Your task to perform on an android device: delete browsing data in the chrome app Image 0: 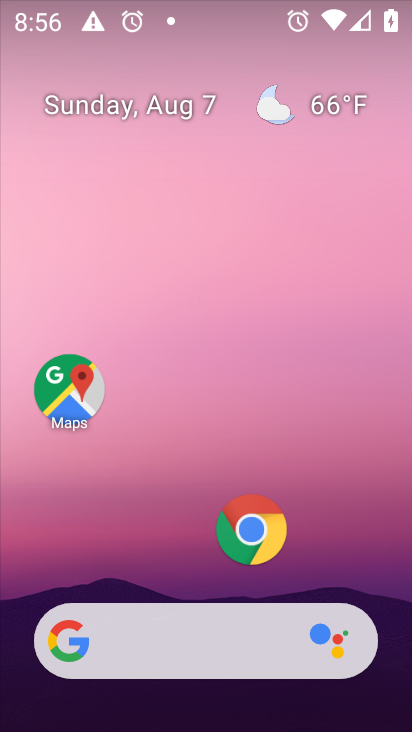
Step 0: click (273, 545)
Your task to perform on an android device: delete browsing data in the chrome app Image 1: 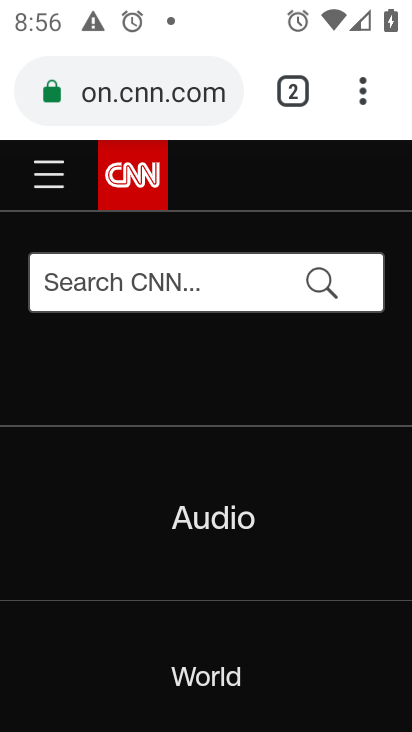
Step 1: click (373, 78)
Your task to perform on an android device: delete browsing data in the chrome app Image 2: 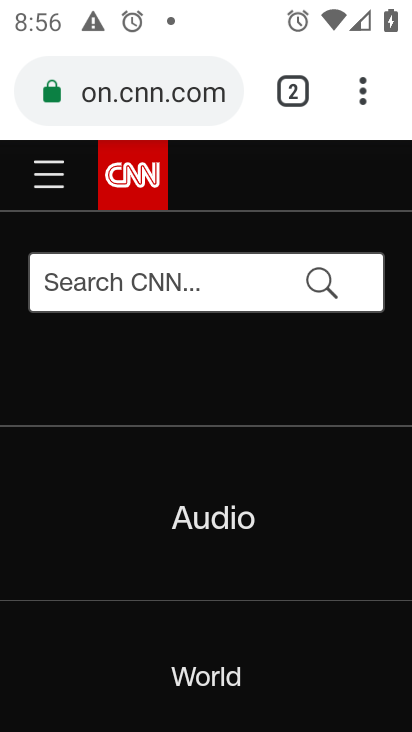
Step 2: click (364, 96)
Your task to perform on an android device: delete browsing data in the chrome app Image 3: 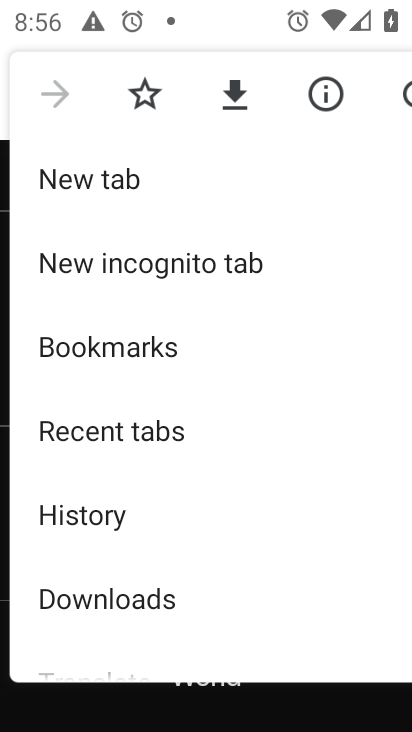
Step 3: drag from (101, 591) to (134, 342)
Your task to perform on an android device: delete browsing data in the chrome app Image 4: 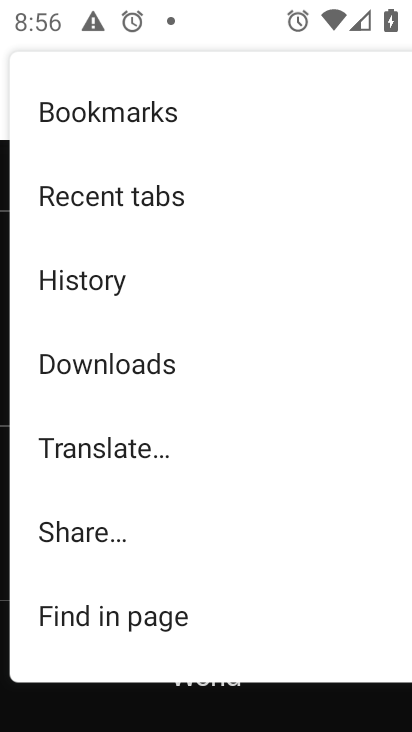
Step 4: drag from (127, 544) to (152, 224)
Your task to perform on an android device: delete browsing data in the chrome app Image 5: 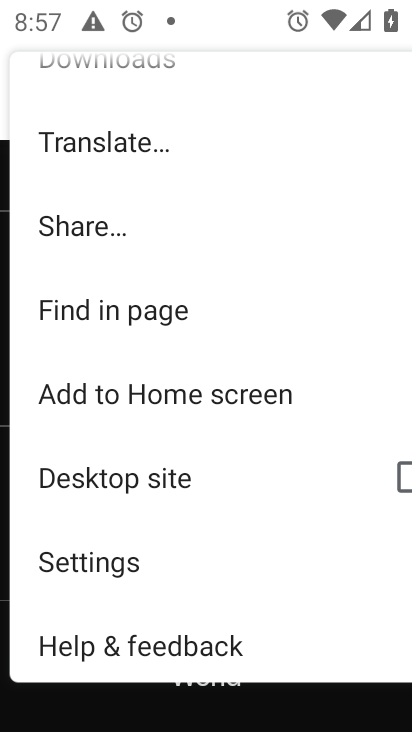
Step 5: drag from (125, 340) to (112, 415)
Your task to perform on an android device: delete browsing data in the chrome app Image 6: 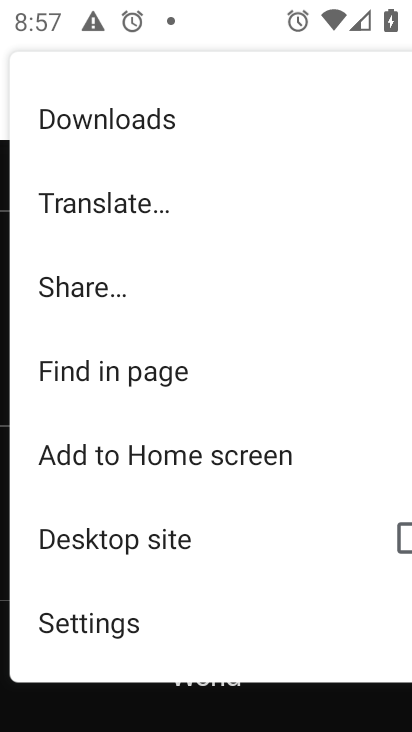
Step 6: drag from (193, 247) to (170, 444)
Your task to perform on an android device: delete browsing data in the chrome app Image 7: 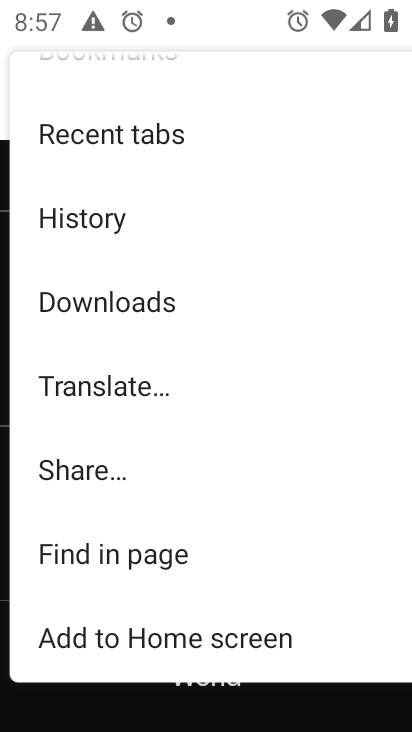
Step 7: click (116, 220)
Your task to perform on an android device: delete browsing data in the chrome app Image 8: 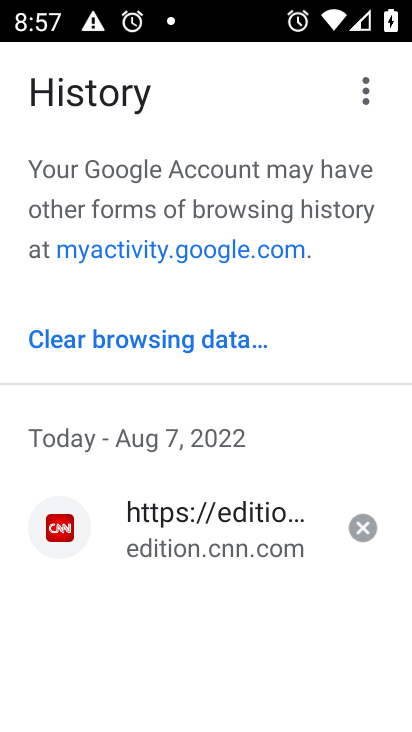
Step 8: click (166, 335)
Your task to perform on an android device: delete browsing data in the chrome app Image 9: 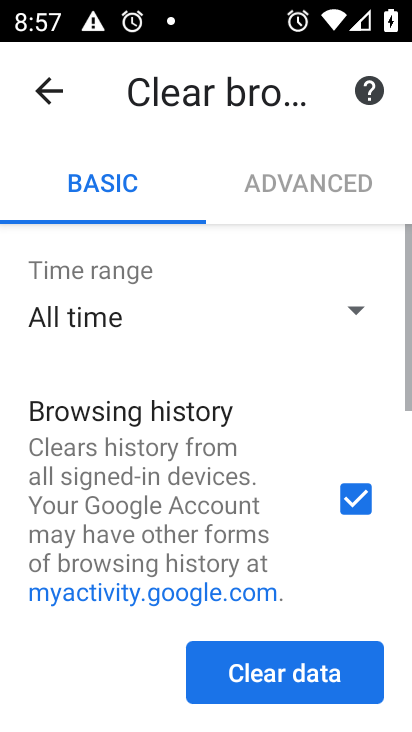
Step 9: click (309, 678)
Your task to perform on an android device: delete browsing data in the chrome app Image 10: 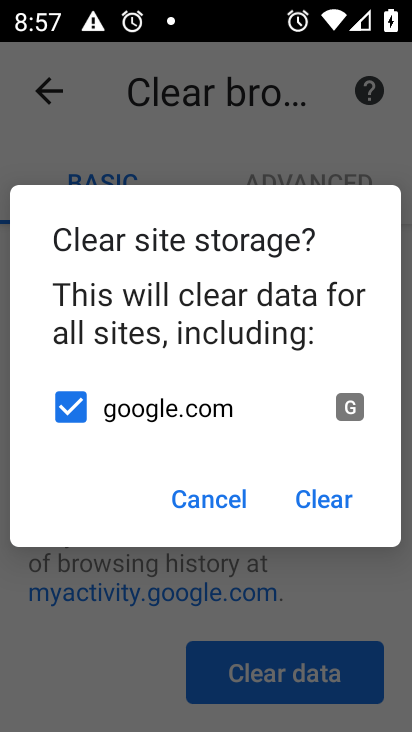
Step 10: click (317, 493)
Your task to perform on an android device: delete browsing data in the chrome app Image 11: 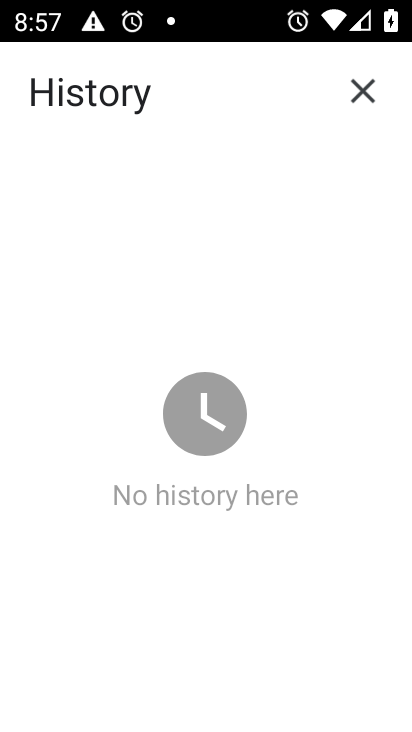
Step 11: task complete